Your task to perform on an android device: Open maps Image 0: 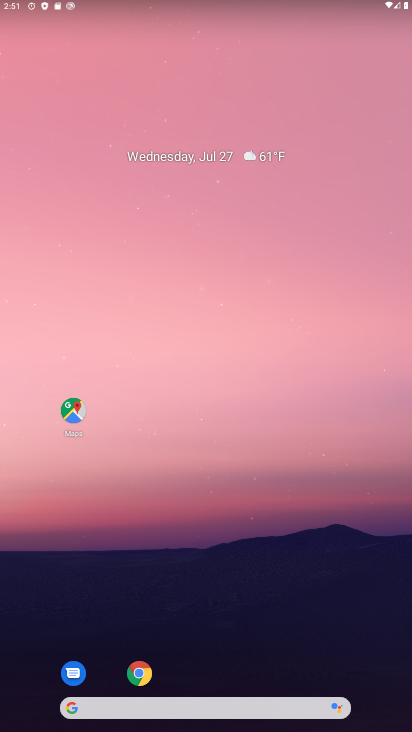
Step 0: click (79, 411)
Your task to perform on an android device: Open maps Image 1: 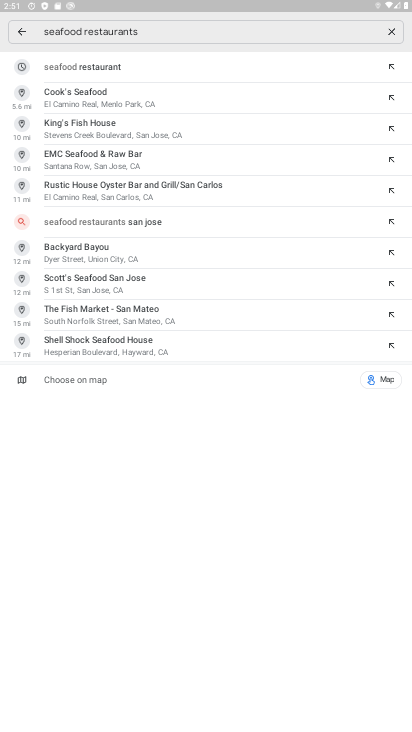
Step 1: click (22, 29)
Your task to perform on an android device: Open maps Image 2: 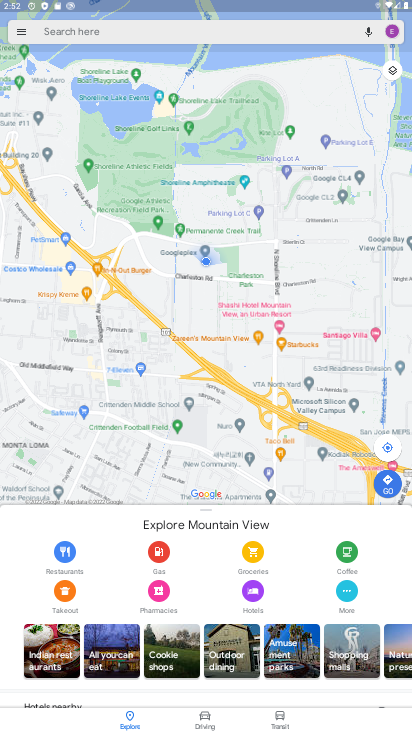
Step 2: task complete